Your task to perform on an android device: See recent photos Image 0: 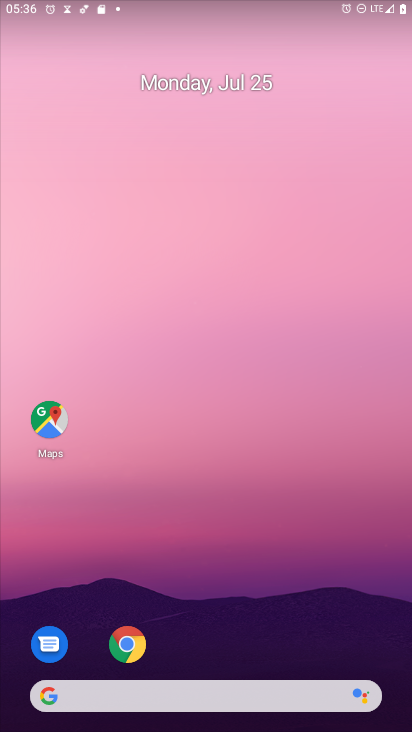
Step 0: press home button
Your task to perform on an android device: See recent photos Image 1: 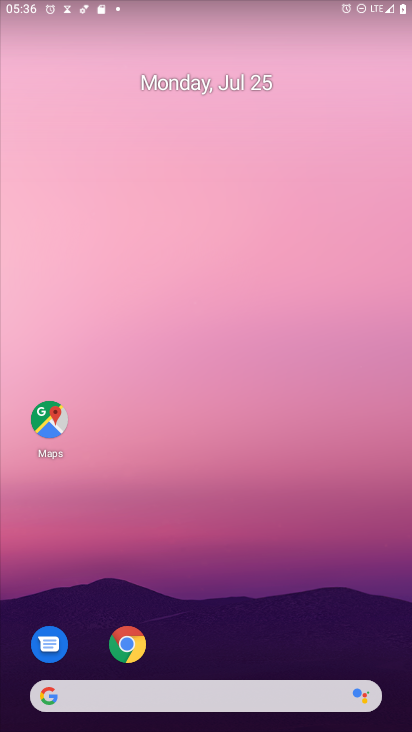
Step 1: drag from (201, 649) to (248, 251)
Your task to perform on an android device: See recent photos Image 2: 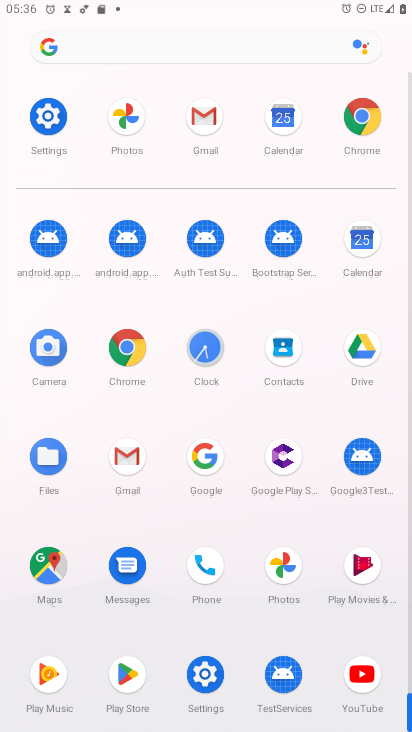
Step 2: click (284, 566)
Your task to perform on an android device: See recent photos Image 3: 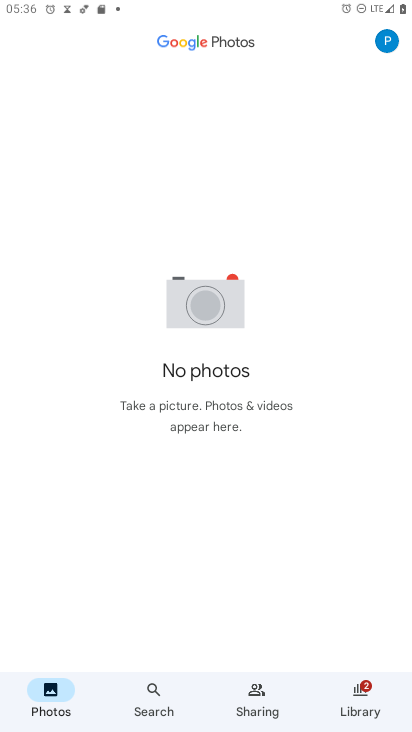
Step 3: task complete